Your task to perform on an android device: Open Google Chrome and click the shortcut for Amazon.com Image 0: 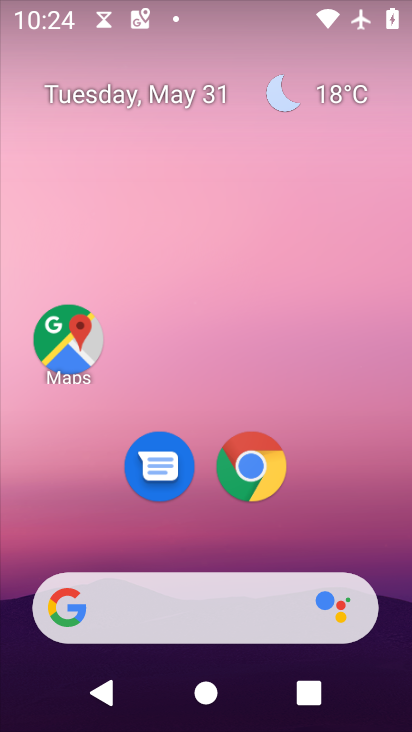
Step 0: drag from (367, 513) to (96, 465)
Your task to perform on an android device: Open Google Chrome and click the shortcut for Amazon.com Image 1: 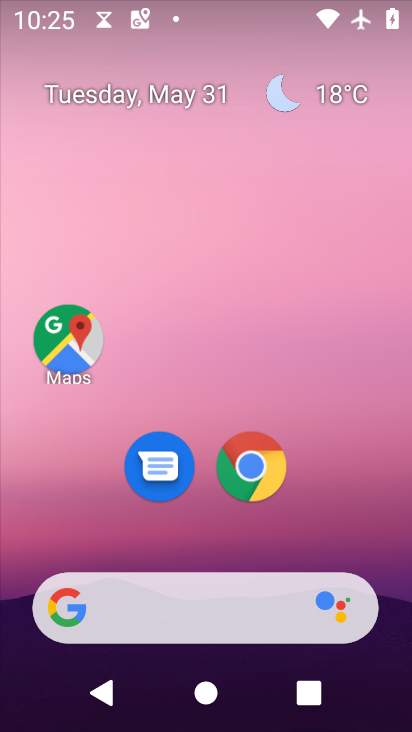
Step 1: drag from (388, 646) to (297, 42)
Your task to perform on an android device: Open Google Chrome and click the shortcut for Amazon.com Image 2: 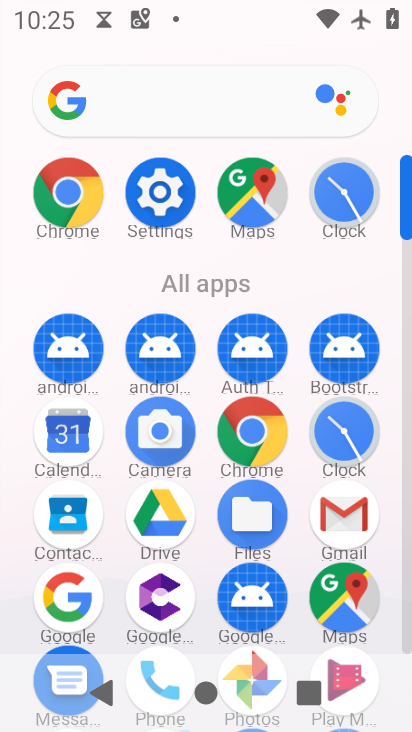
Step 2: click (243, 424)
Your task to perform on an android device: Open Google Chrome and click the shortcut for Amazon.com Image 3: 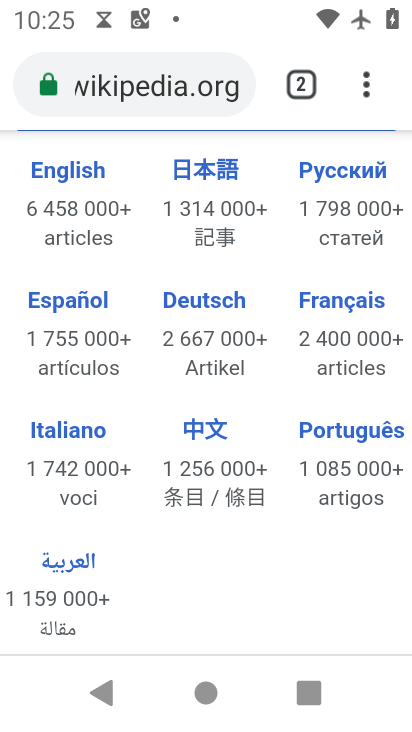
Step 3: click (165, 73)
Your task to perform on an android device: Open Google Chrome and click the shortcut for Amazon.com Image 4: 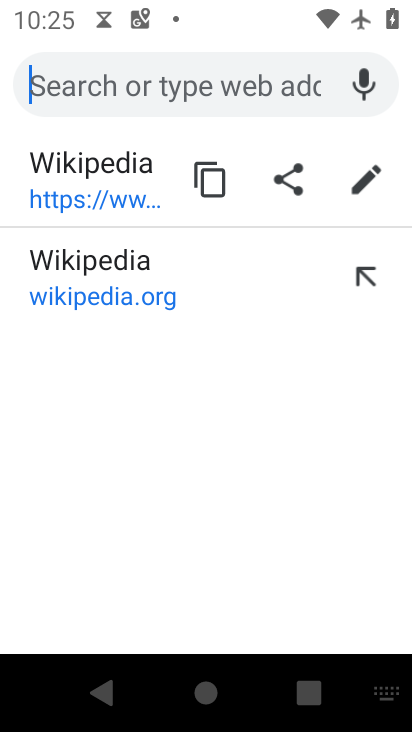
Step 4: type "Amazon.com"
Your task to perform on an android device: Open Google Chrome and click the shortcut for Amazon.com Image 5: 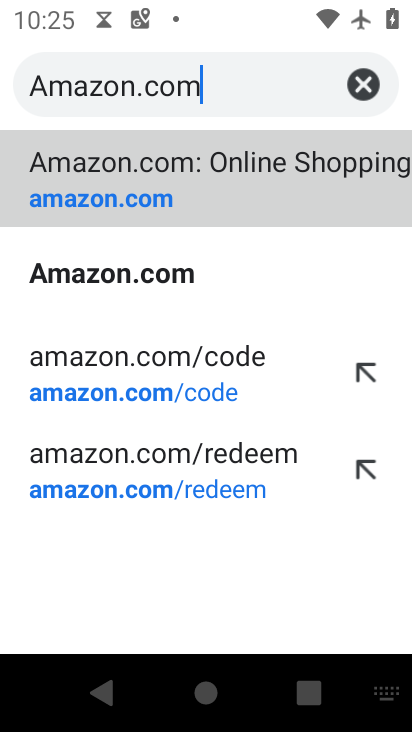
Step 5: click (185, 175)
Your task to perform on an android device: Open Google Chrome and click the shortcut for Amazon.com Image 6: 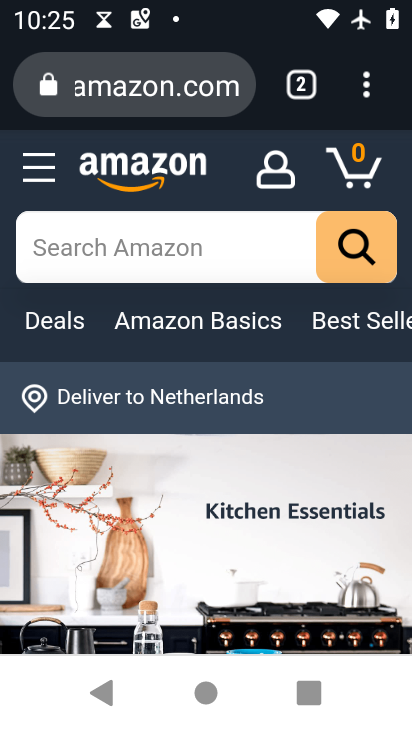
Step 6: task complete